Your task to perform on an android device: Add usb-a to the cart on ebay.com Image 0: 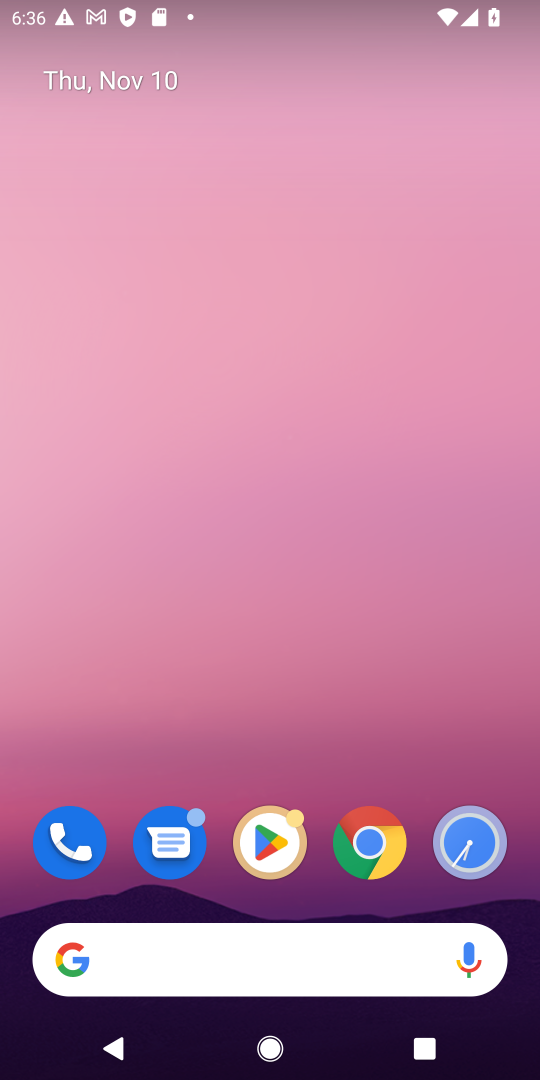
Step 0: click (371, 851)
Your task to perform on an android device: Add usb-a to the cart on ebay.com Image 1: 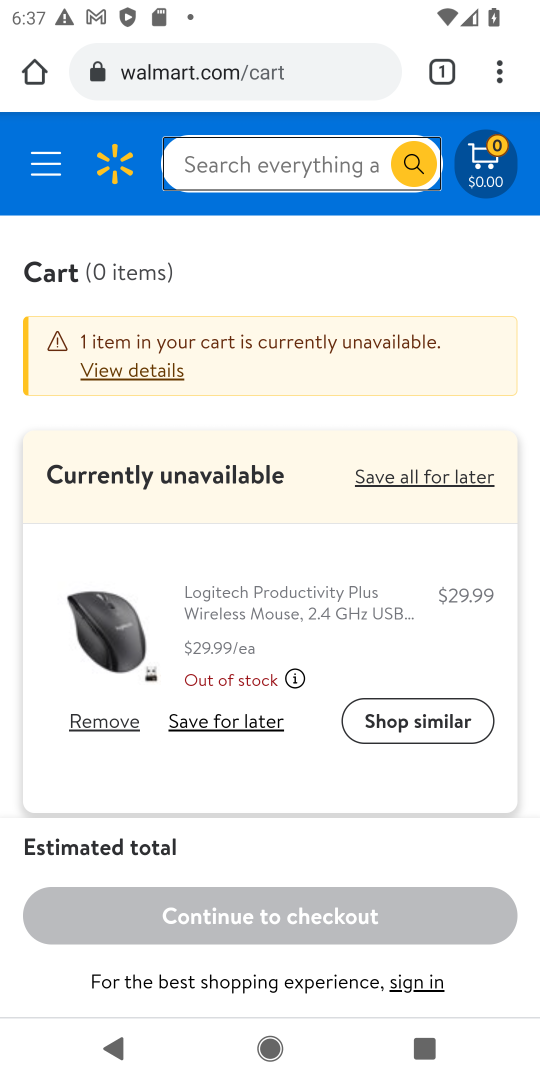
Step 1: click (439, 76)
Your task to perform on an android device: Add usb-a to the cart on ebay.com Image 2: 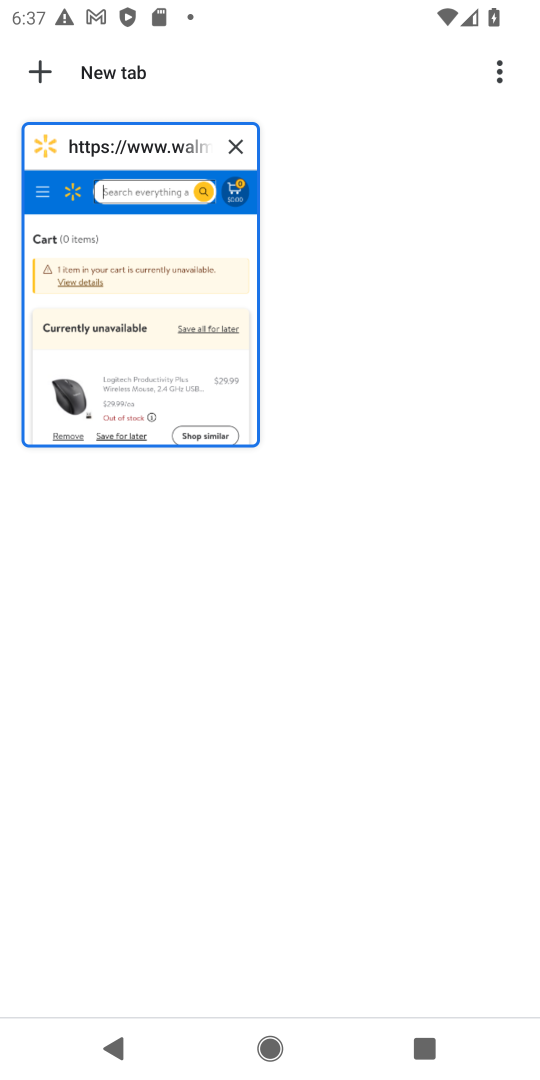
Step 2: click (37, 77)
Your task to perform on an android device: Add usb-a to the cart on ebay.com Image 3: 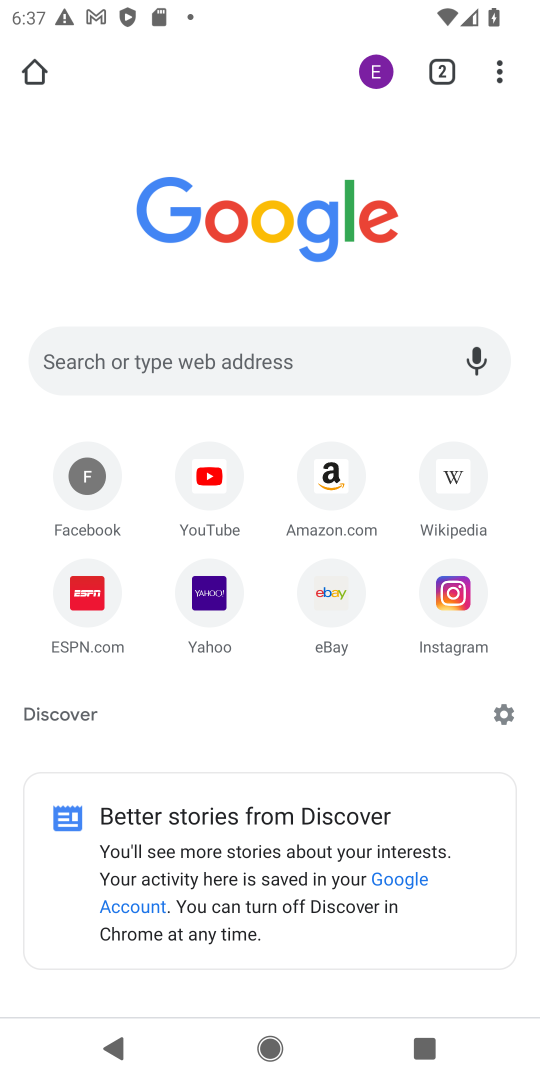
Step 3: click (337, 595)
Your task to perform on an android device: Add usb-a to the cart on ebay.com Image 4: 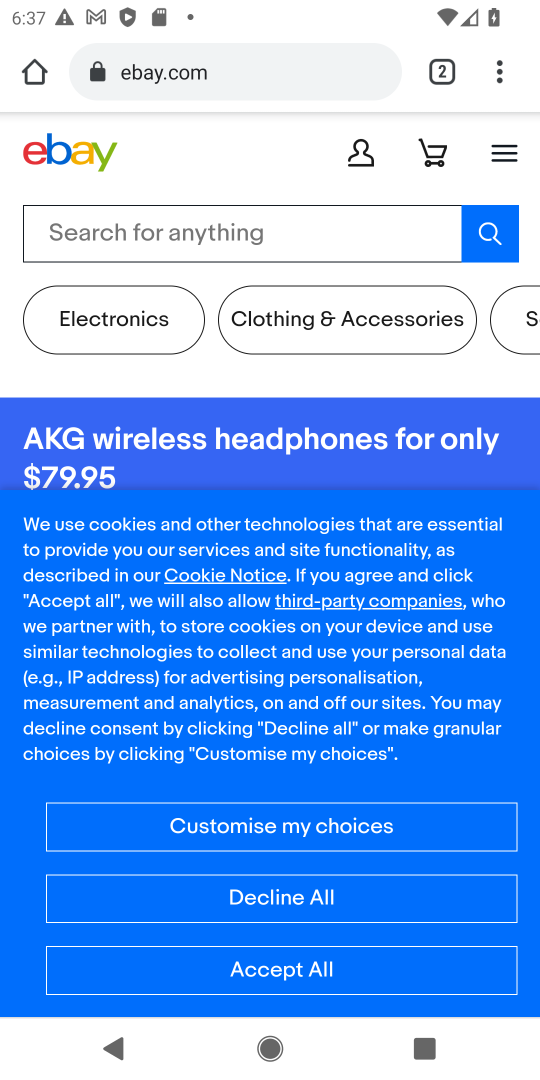
Step 4: click (242, 890)
Your task to perform on an android device: Add usb-a to the cart on ebay.com Image 5: 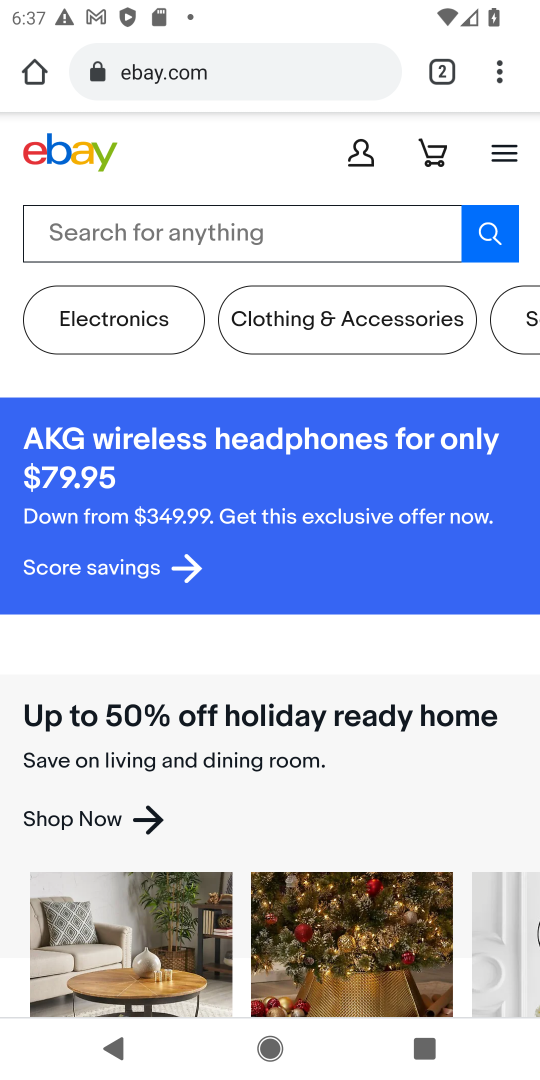
Step 5: click (171, 222)
Your task to perform on an android device: Add usb-a to the cart on ebay.com Image 6: 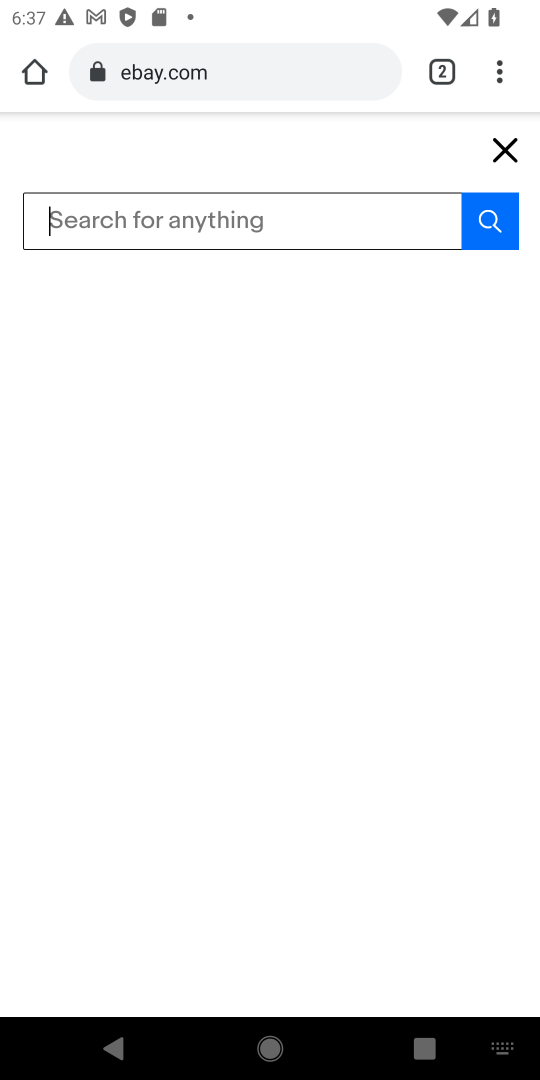
Step 6: type "usb-a"
Your task to perform on an android device: Add usb-a to the cart on ebay.com Image 7: 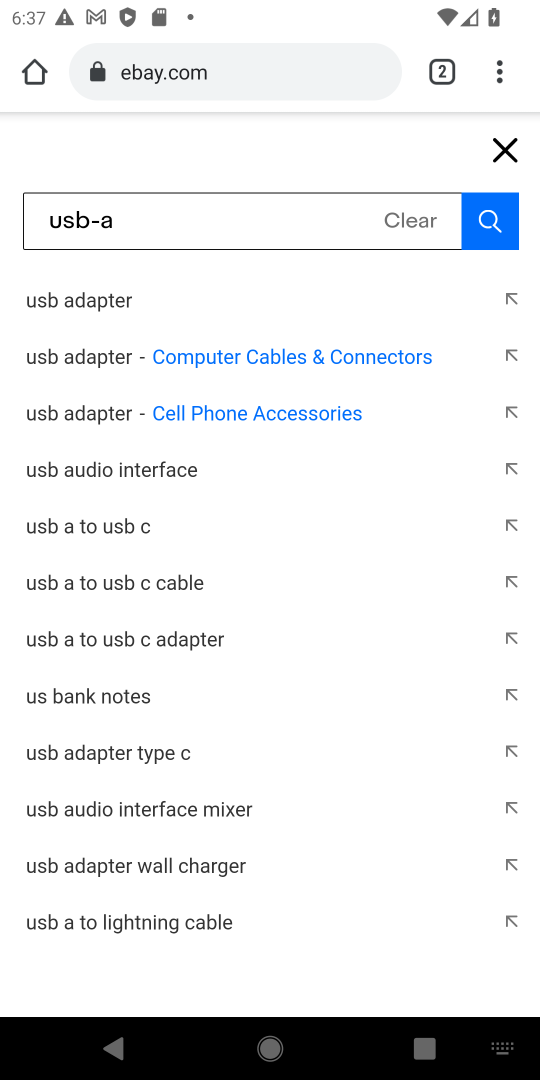
Step 7: click (92, 296)
Your task to perform on an android device: Add usb-a to the cart on ebay.com Image 8: 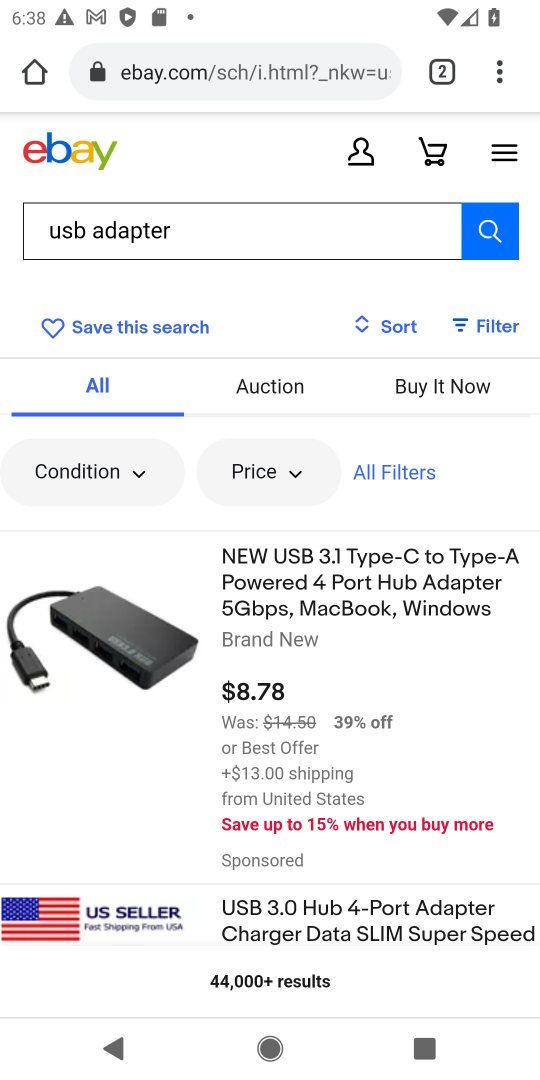
Step 8: click (362, 566)
Your task to perform on an android device: Add usb-a to the cart on ebay.com Image 9: 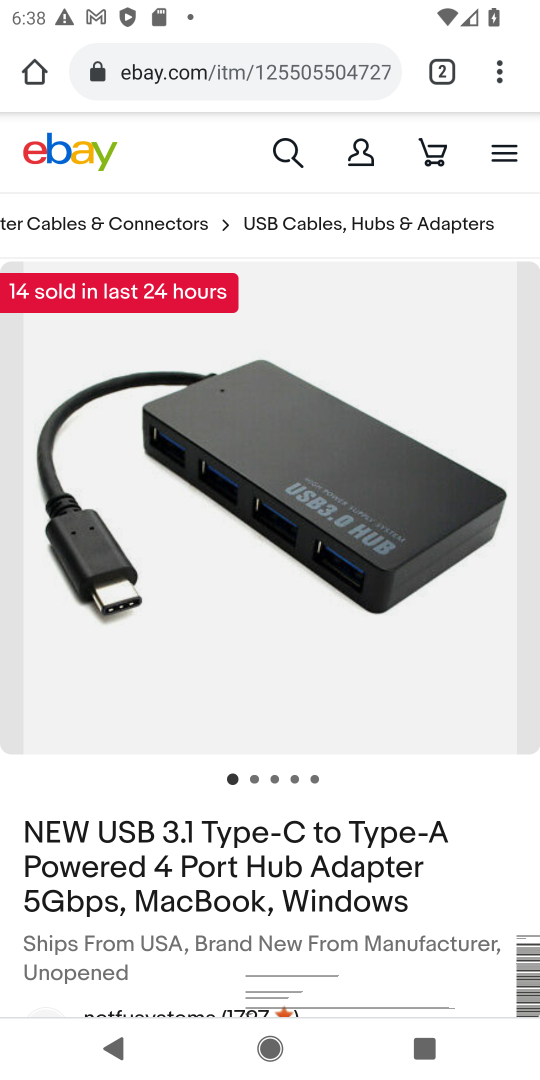
Step 9: drag from (429, 967) to (488, 357)
Your task to perform on an android device: Add usb-a to the cart on ebay.com Image 10: 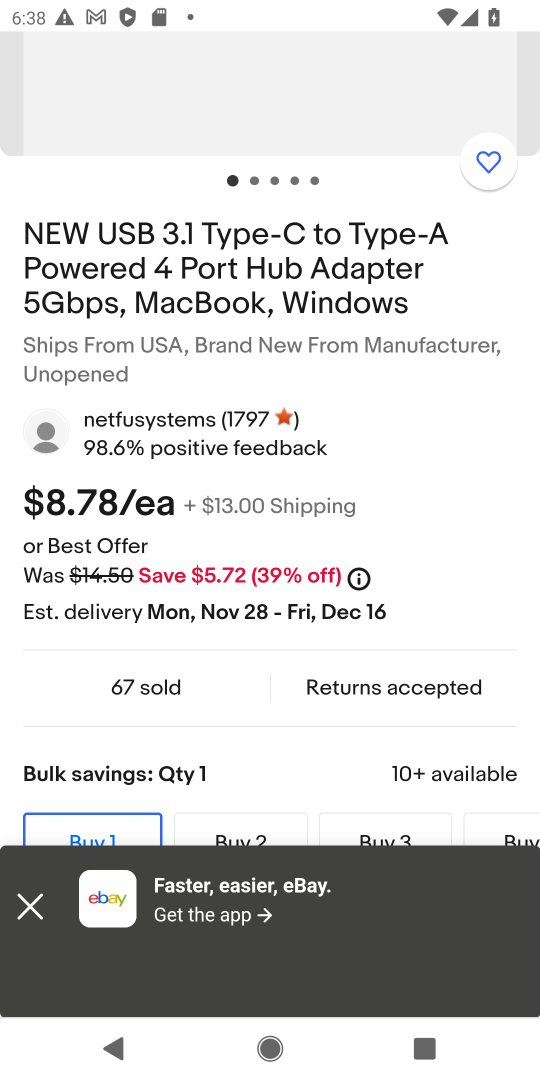
Step 10: drag from (419, 531) to (429, 77)
Your task to perform on an android device: Add usb-a to the cart on ebay.com Image 11: 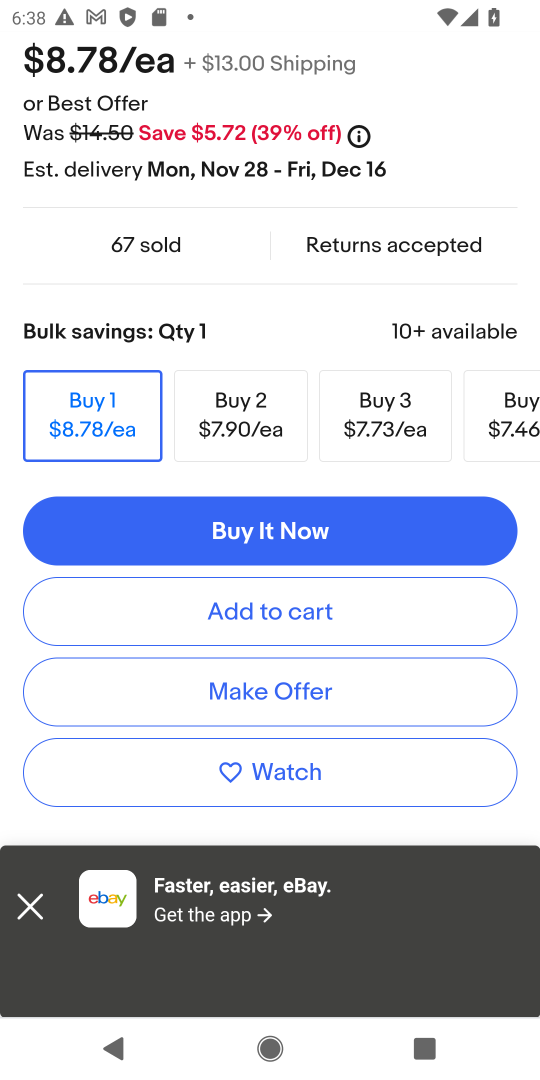
Step 11: click (306, 610)
Your task to perform on an android device: Add usb-a to the cart on ebay.com Image 12: 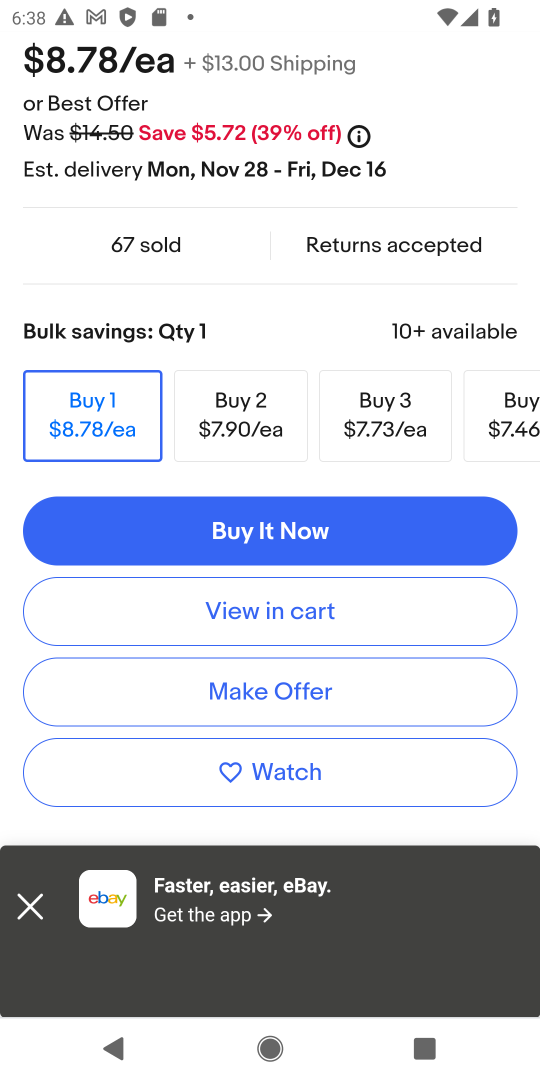
Step 12: task complete